Your task to perform on an android device: allow cookies in the chrome app Image 0: 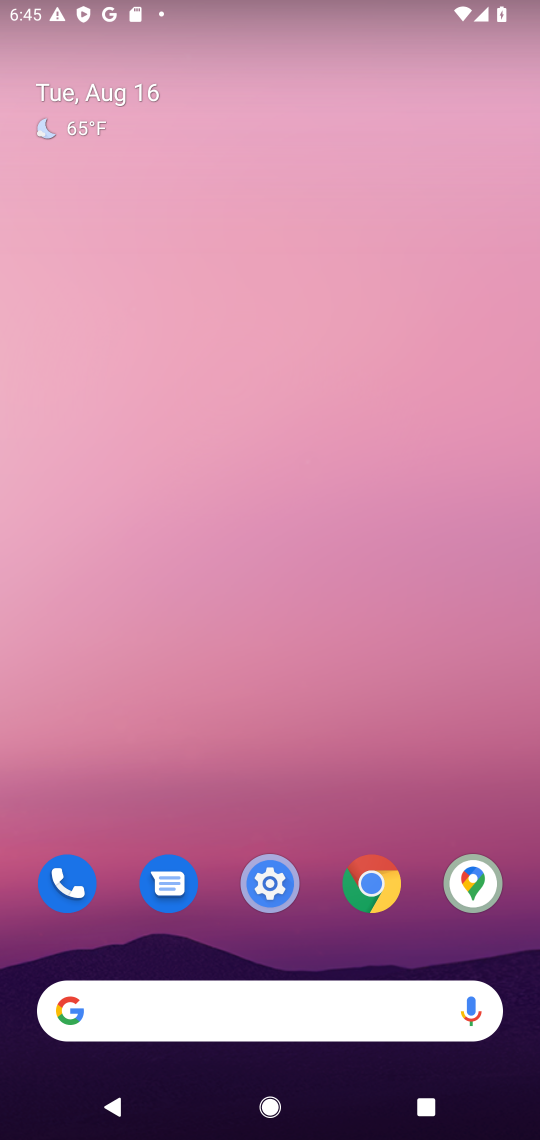
Step 0: click (371, 890)
Your task to perform on an android device: allow cookies in the chrome app Image 1: 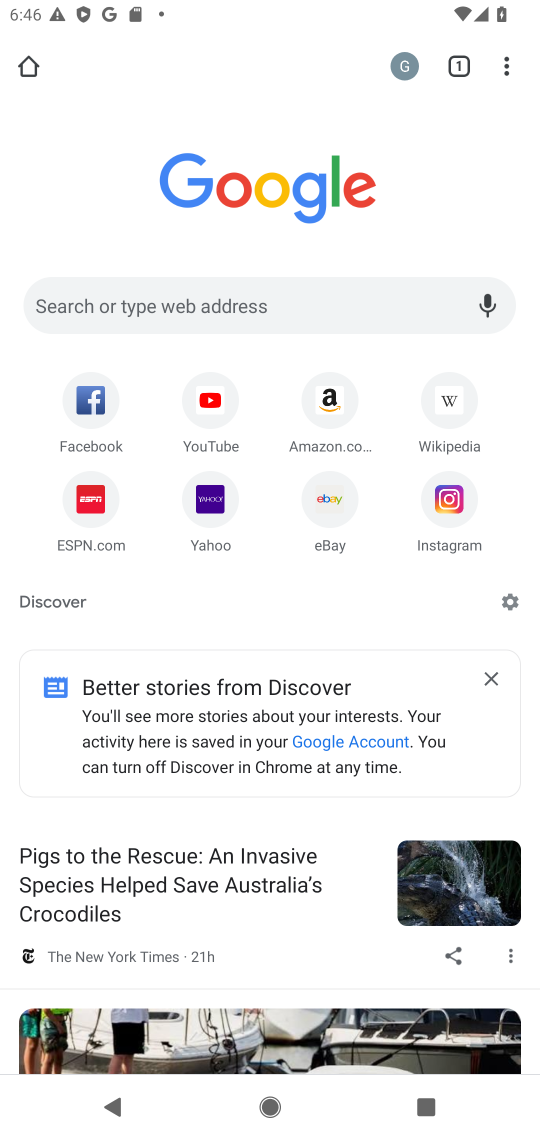
Step 1: click (516, 75)
Your task to perform on an android device: allow cookies in the chrome app Image 2: 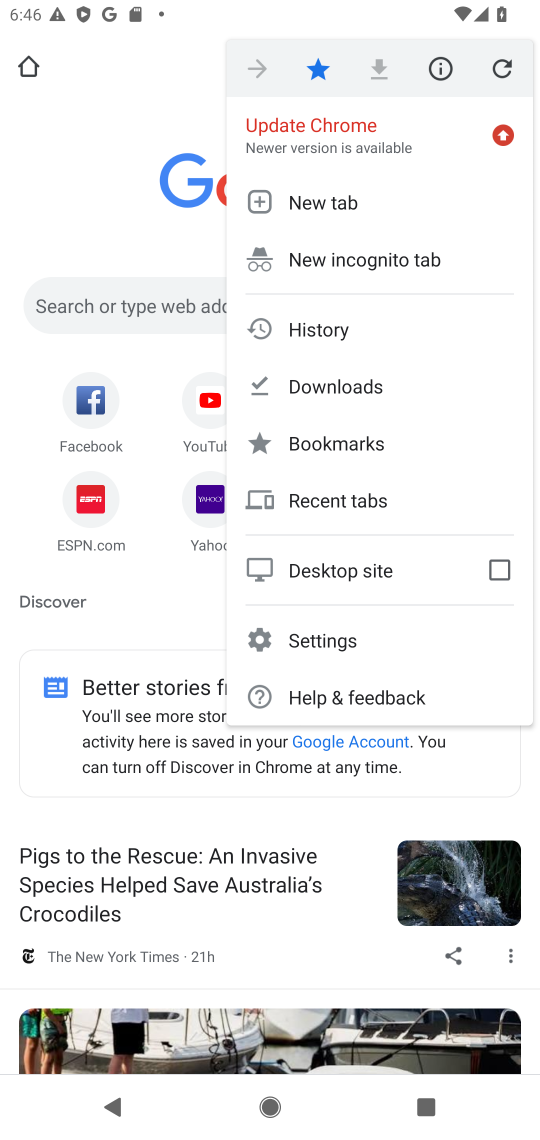
Step 2: click (312, 640)
Your task to perform on an android device: allow cookies in the chrome app Image 3: 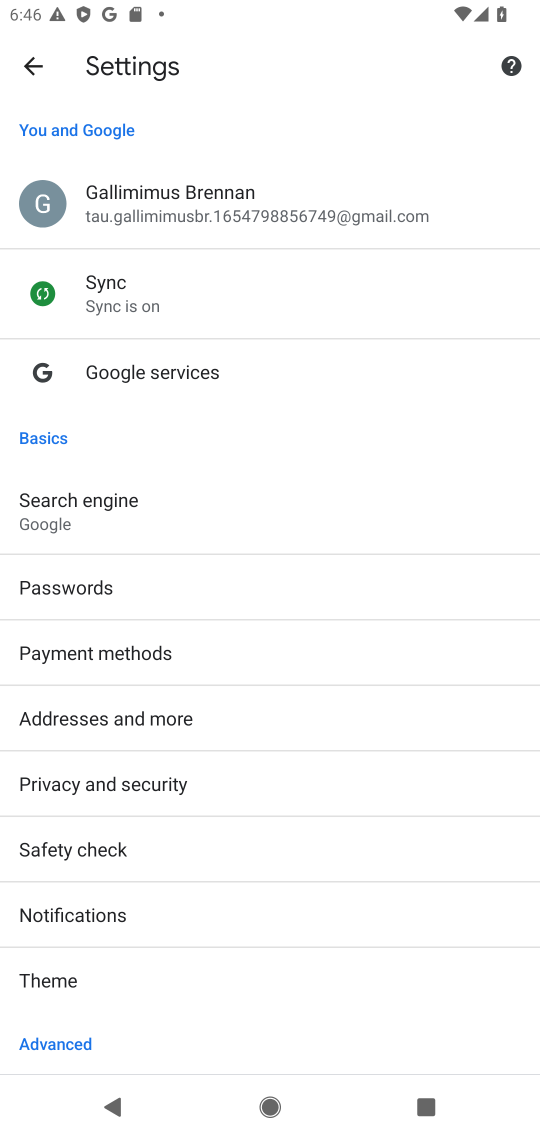
Step 3: drag from (146, 944) to (269, 611)
Your task to perform on an android device: allow cookies in the chrome app Image 4: 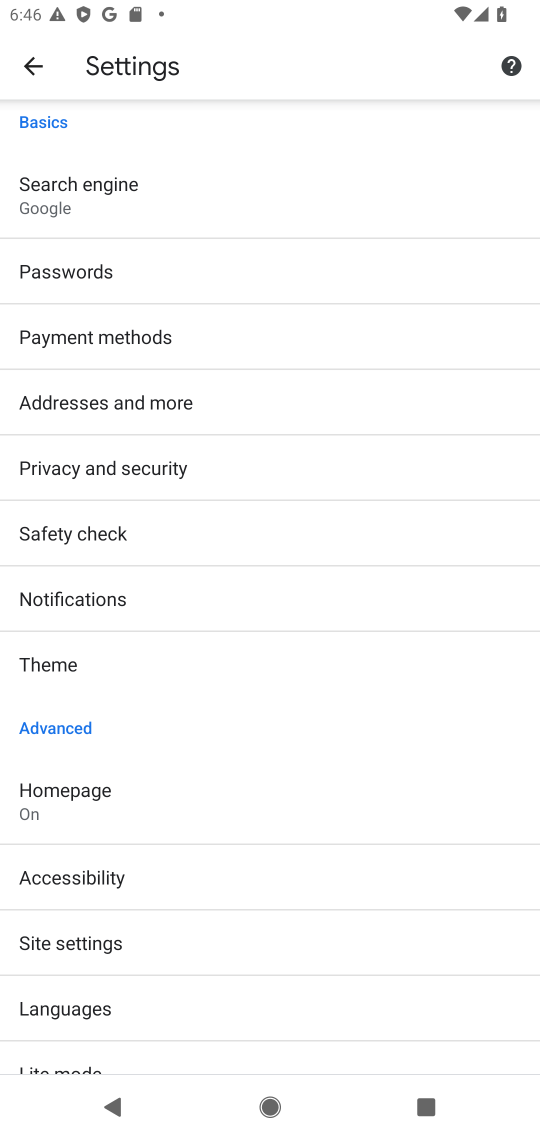
Step 4: click (95, 955)
Your task to perform on an android device: allow cookies in the chrome app Image 5: 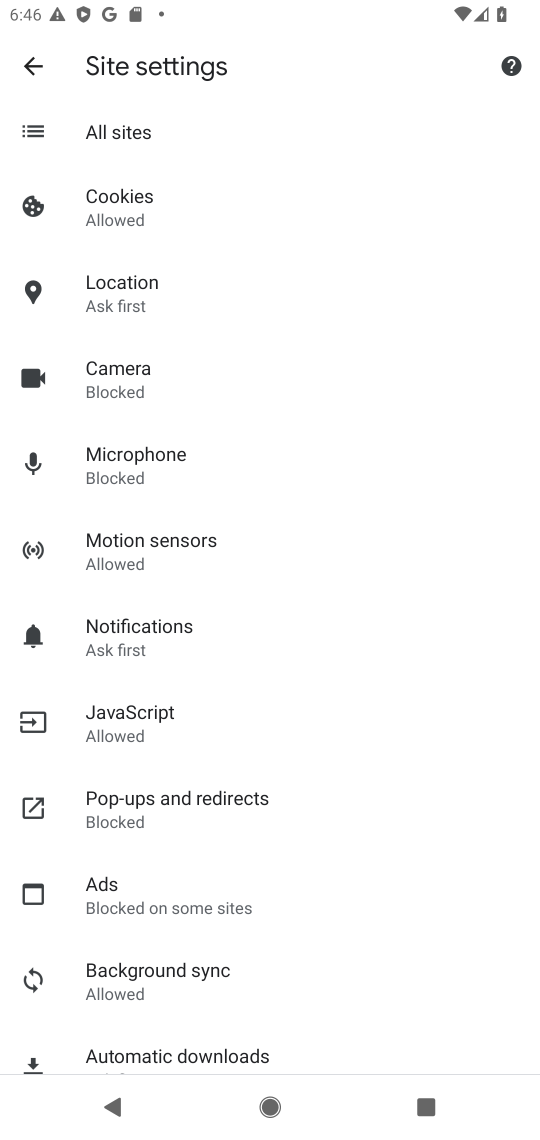
Step 5: click (105, 235)
Your task to perform on an android device: allow cookies in the chrome app Image 6: 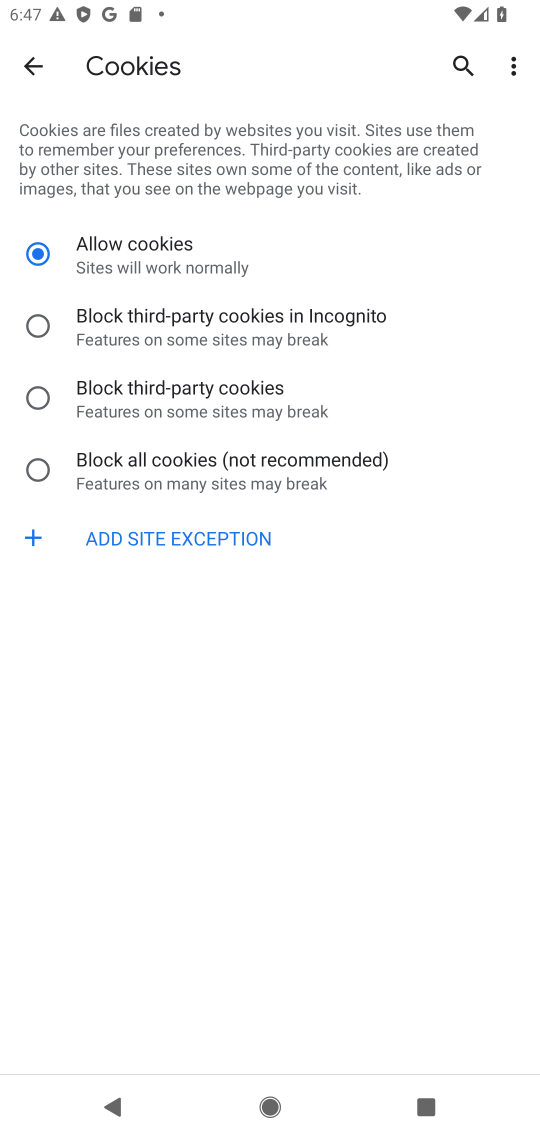
Step 6: task complete